Your task to perform on an android device: What's the latest news in space exploration? Image 0: 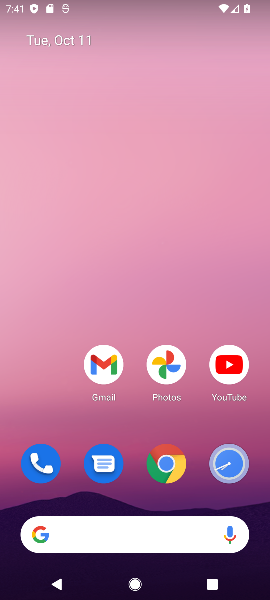
Step 0: drag from (130, 498) to (129, 126)
Your task to perform on an android device: What's the latest news in space exploration? Image 1: 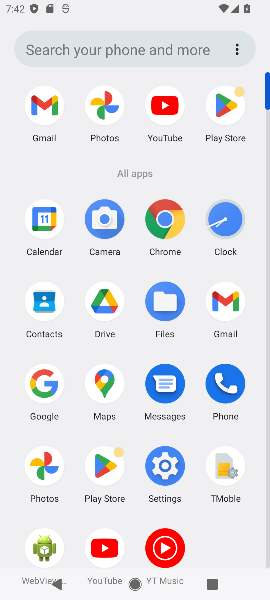
Step 1: click (39, 387)
Your task to perform on an android device: What's the latest news in space exploration? Image 2: 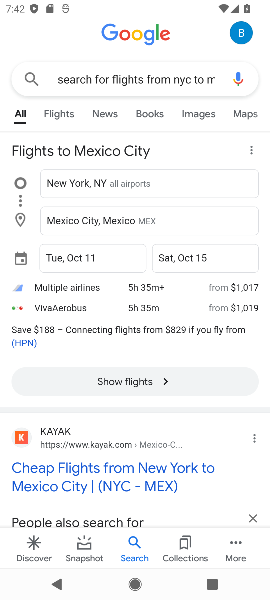
Step 2: click (149, 74)
Your task to perform on an android device: What's the latest news in space exploration? Image 3: 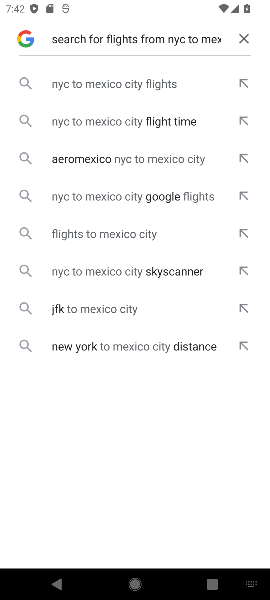
Step 3: click (237, 32)
Your task to perform on an android device: What's the latest news in space exploration? Image 4: 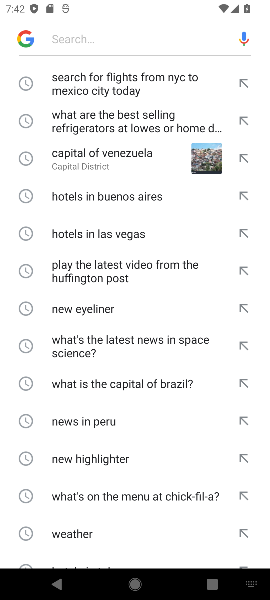
Step 4: click (94, 37)
Your task to perform on an android device: What's the latest news in space exploration? Image 5: 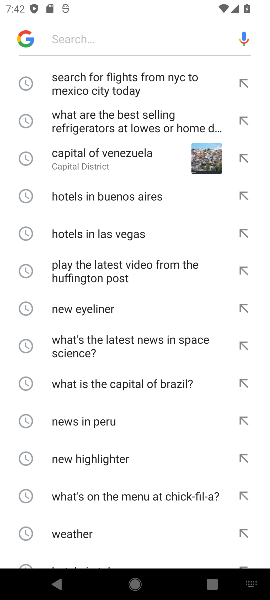
Step 5: type "What's the latest news in space exploration? "
Your task to perform on an android device: What's the latest news in space exploration? Image 6: 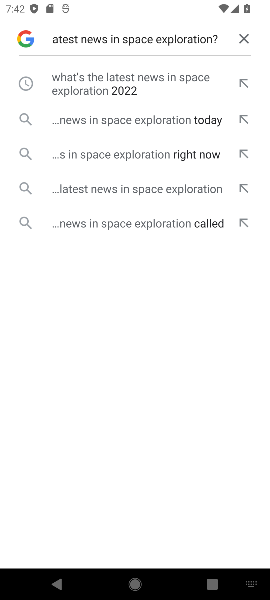
Step 6: click (115, 90)
Your task to perform on an android device: What's the latest news in space exploration? Image 7: 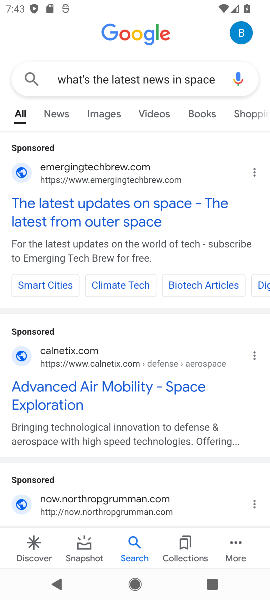
Step 7: click (112, 198)
Your task to perform on an android device: What's the latest news in space exploration? Image 8: 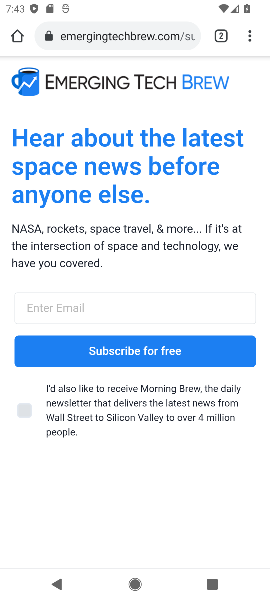
Step 8: press back button
Your task to perform on an android device: What's the latest news in space exploration? Image 9: 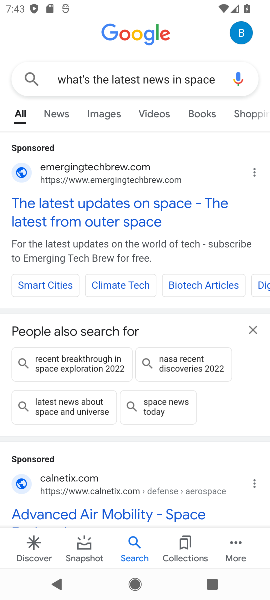
Step 9: drag from (144, 453) to (154, 252)
Your task to perform on an android device: What's the latest news in space exploration? Image 10: 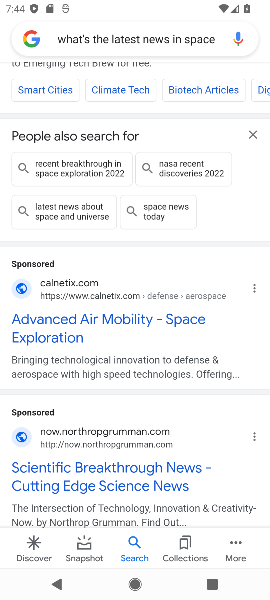
Step 10: click (58, 319)
Your task to perform on an android device: What's the latest news in space exploration? Image 11: 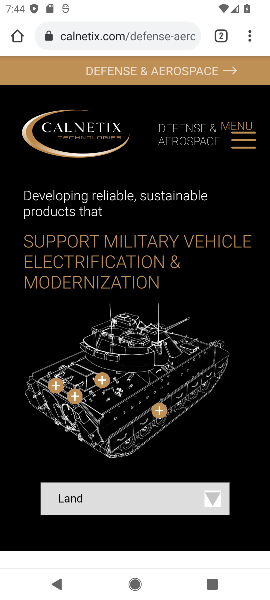
Step 11: task complete